Your task to perform on an android device: Open calendar and show me the fourth week of next month Image 0: 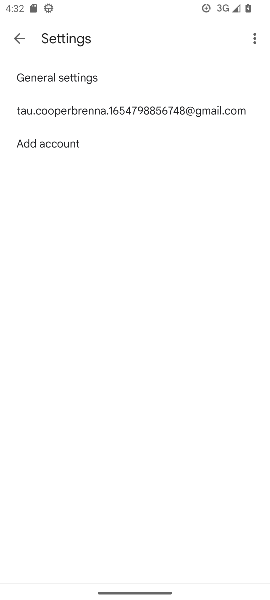
Step 0: click (10, 37)
Your task to perform on an android device: Open calendar and show me the fourth week of next month Image 1: 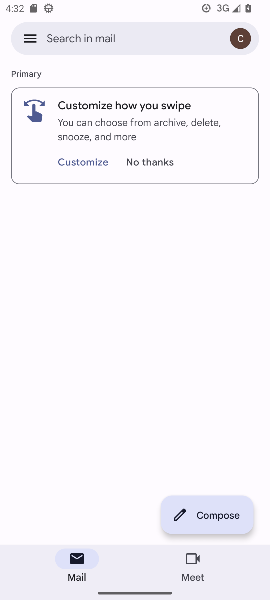
Step 1: press back button
Your task to perform on an android device: Open calendar and show me the fourth week of next month Image 2: 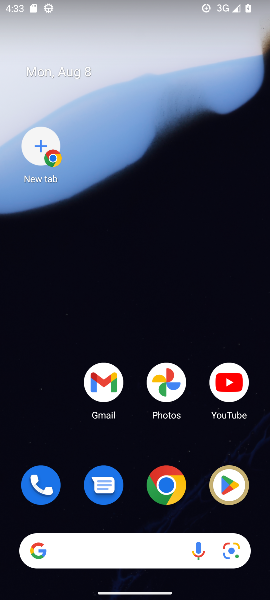
Step 2: click (131, 134)
Your task to perform on an android device: Open calendar and show me the fourth week of next month Image 3: 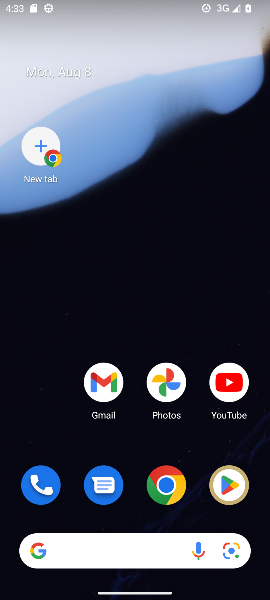
Step 3: drag from (117, 359) to (116, 161)
Your task to perform on an android device: Open calendar and show me the fourth week of next month Image 4: 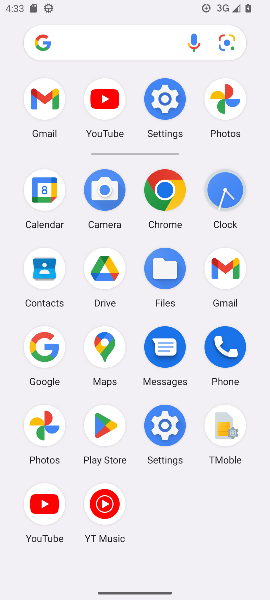
Step 4: click (43, 199)
Your task to perform on an android device: Open calendar and show me the fourth week of next month Image 5: 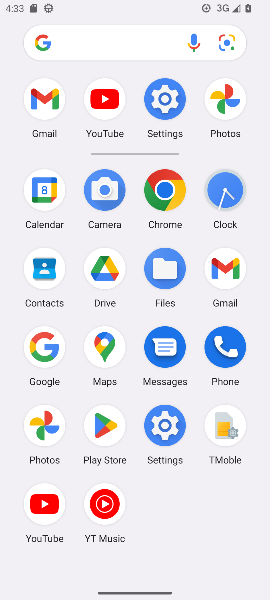
Step 5: click (43, 199)
Your task to perform on an android device: Open calendar and show me the fourth week of next month Image 6: 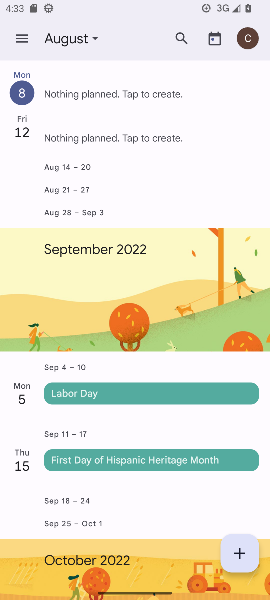
Step 6: click (87, 39)
Your task to perform on an android device: Open calendar and show me the fourth week of next month Image 7: 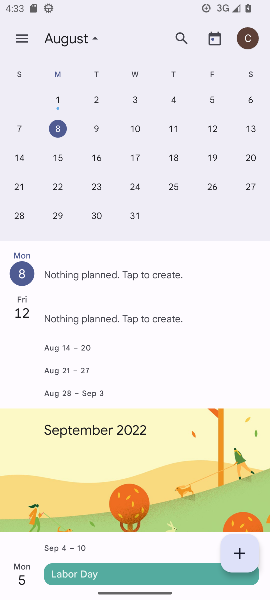
Step 7: drag from (249, 161) to (60, 92)
Your task to perform on an android device: Open calendar and show me the fourth week of next month Image 8: 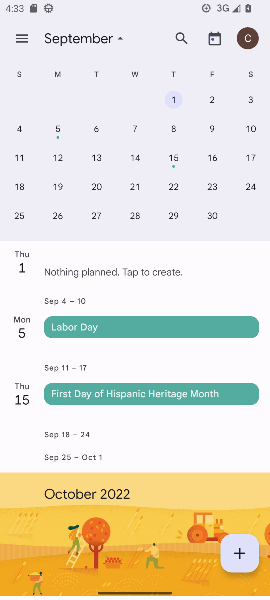
Step 8: click (176, 182)
Your task to perform on an android device: Open calendar and show me the fourth week of next month Image 9: 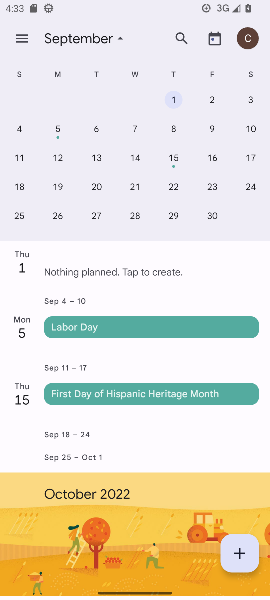
Step 9: click (169, 186)
Your task to perform on an android device: Open calendar and show me the fourth week of next month Image 10: 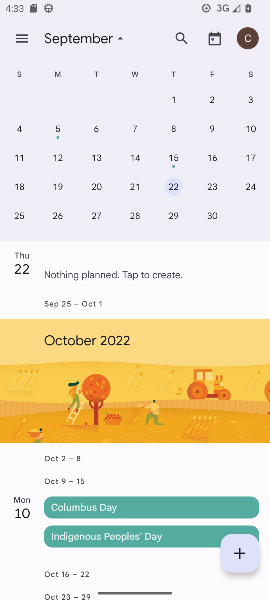
Step 10: click (169, 186)
Your task to perform on an android device: Open calendar and show me the fourth week of next month Image 11: 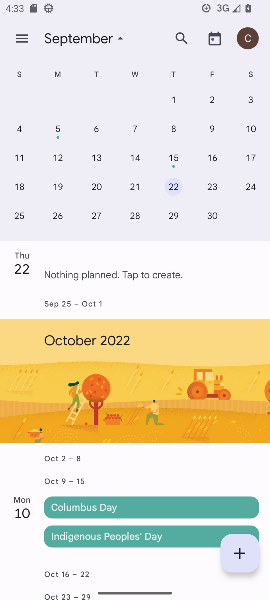
Step 11: click (169, 186)
Your task to perform on an android device: Open calendar and show me the fourth week of next month Image 12: 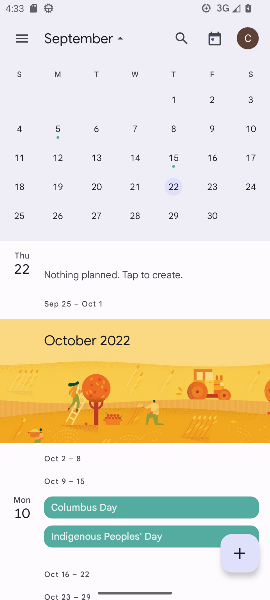
Step 12: click (169, 186)
Your task to perform on an android device: Open calendar and show me the fourth week of next month Image 13: 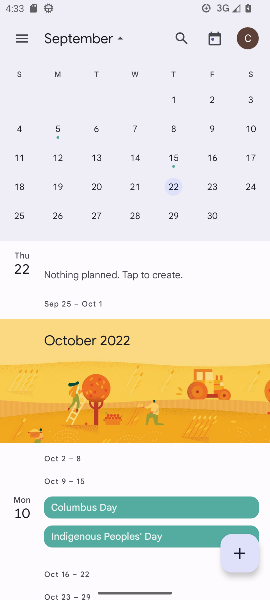
Step 13: task complete